Your task to perform on an android device: change keyboard looks Image 0: 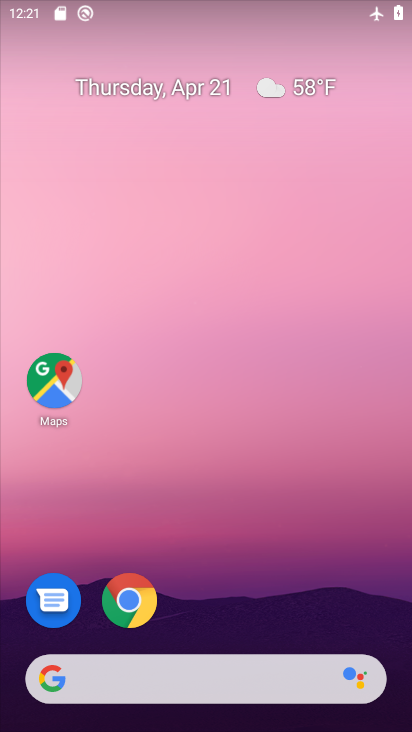
Step 0: drag from (252, 546) to (339, 94)
Your task to perform on an android device: change keyboard looks Image 1: 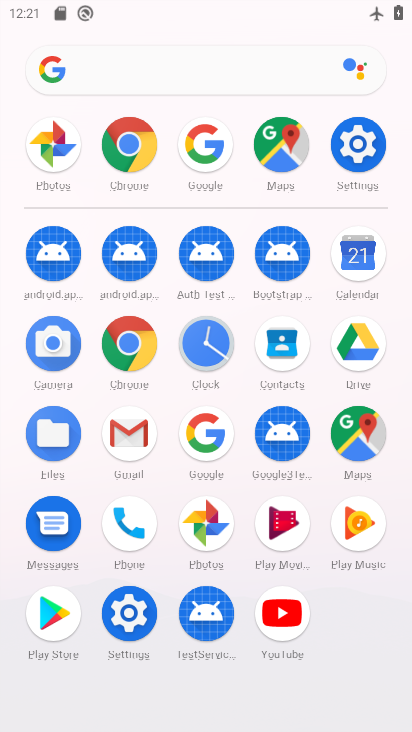
Step 1: click (354, 147)
Your task to perform on an android device: change keyboard looks Image 2: 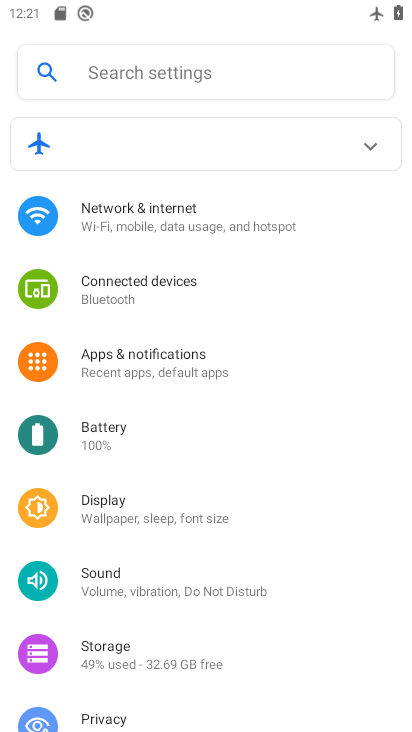
Step 2: drag from (257, 615) to (314, 193)
Your task to perform on an android device: change keyboard looks Image 3: 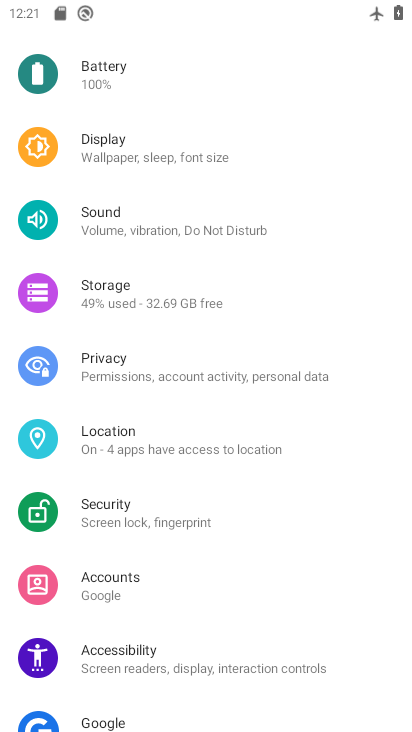
Step 3: drag from (231, 574) to (277, 176)
Your task to perform on an android device: change keyboard looks Image 4: 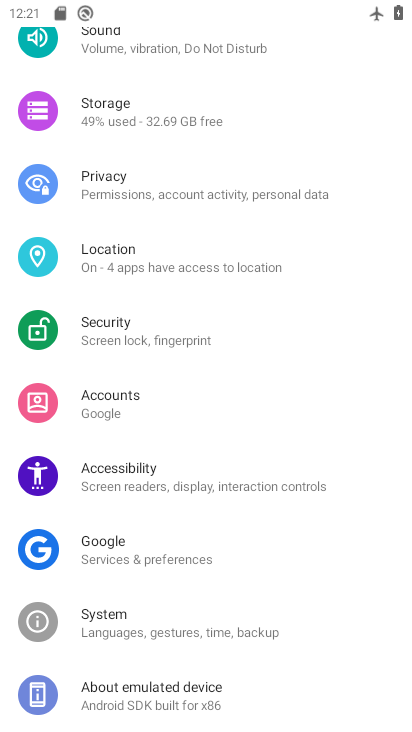
Step 4: click (192, 621)
Your task to perform on an android device: change keyboard looks Image 5: 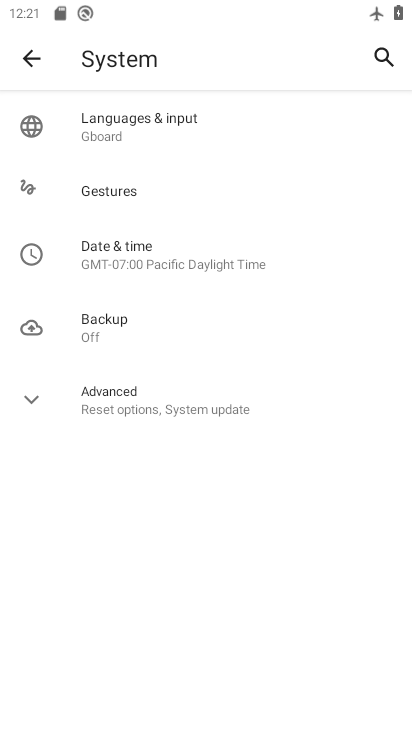
Step 5: click (166, 128)
Your task to perform on an android device: change keyboard looks Image 6: 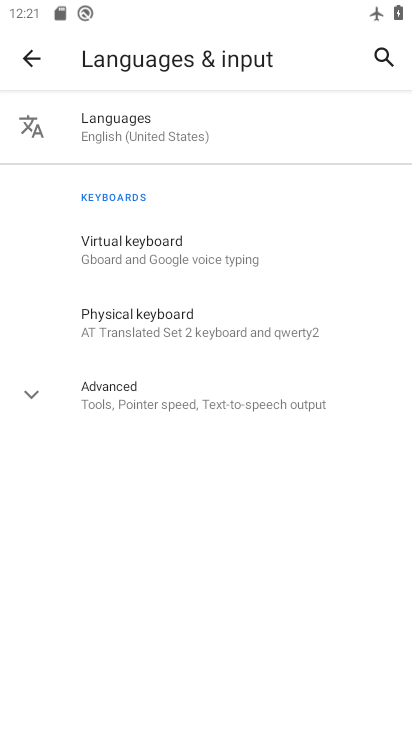
Step 6: click (155, 242)
Your task to perform on an android device: change keyboard looks Image 7: 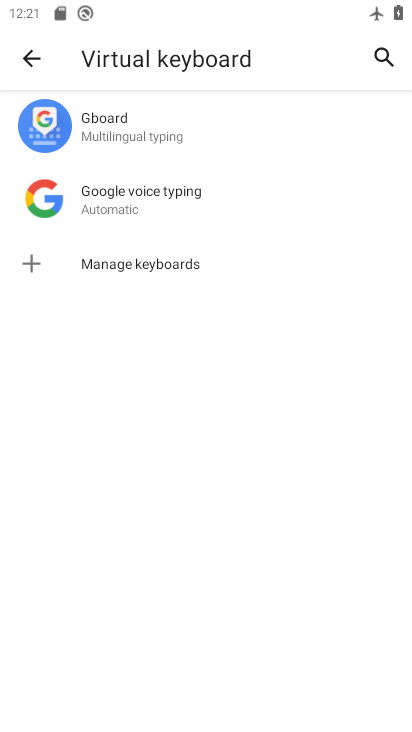
Step 7: click (130, 125)
Your task to perform on an android device: change keyboard looks Image 8: 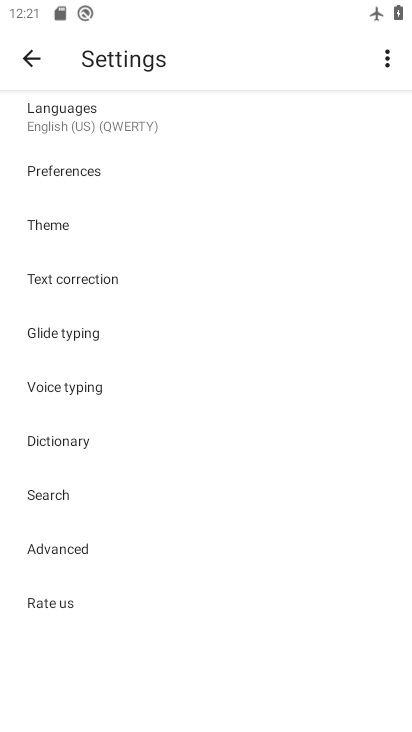
Step 8: click (76, 226)
Your task to perform on an android device: change keyboard looks Image 9: 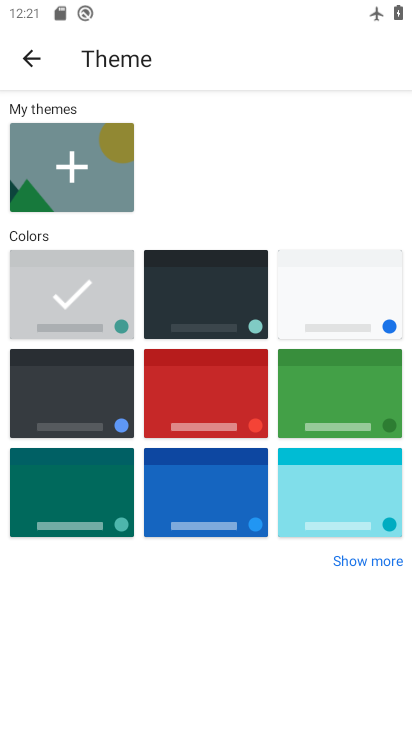
Step 9: click (319, 303)
Your task to perform on an android device: change keyboard looks Image 10: 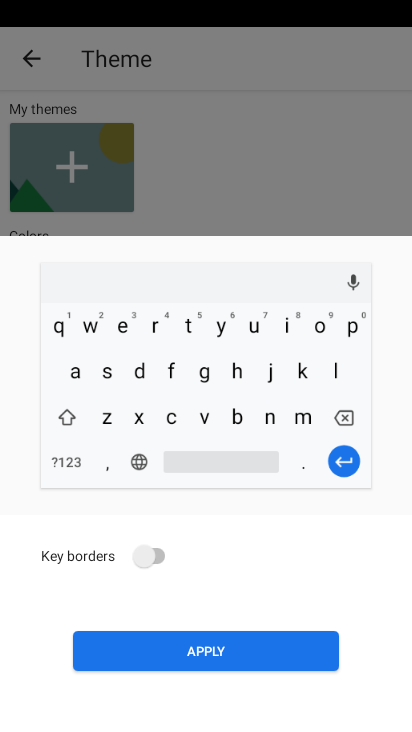
Step 10: click (149, 547)
Your task to perform on an android device: change keyboard looks Image 11: 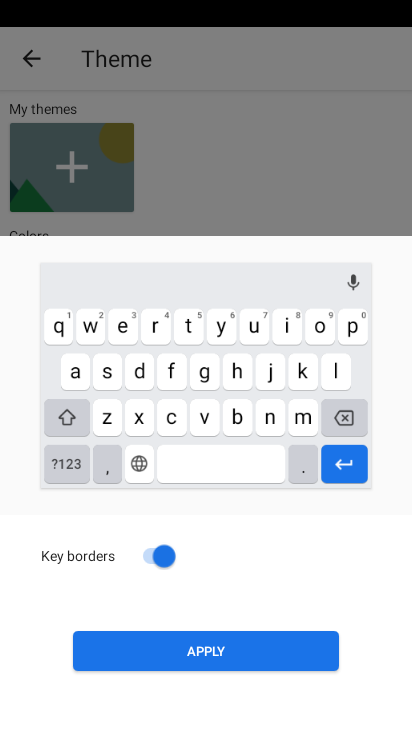
Step 11: click (221, 648)
Your task to perform on an android device: change keyboard looks Image 12: 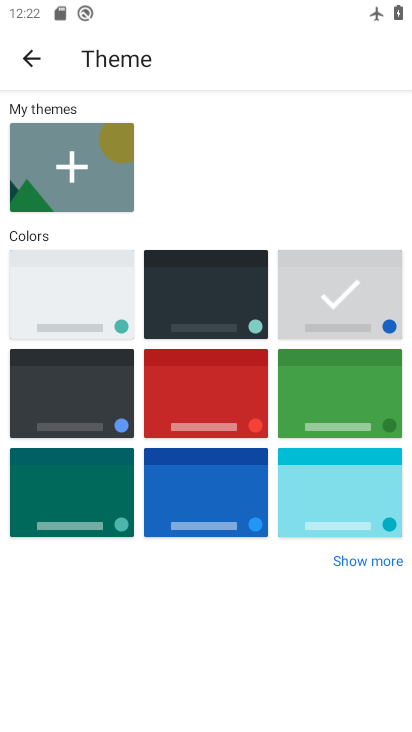
Step 12: task complete